Your task to perform on an android device: find snoozed emails in the gmail app Image 0: 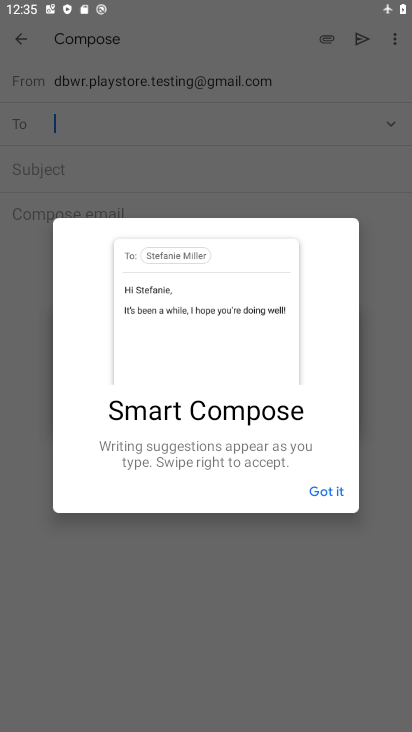
Step 0: drag from (204, 647) to (204, 10)
Your task to perform on an android device: find snoozed emails in the gmail app Image 1: 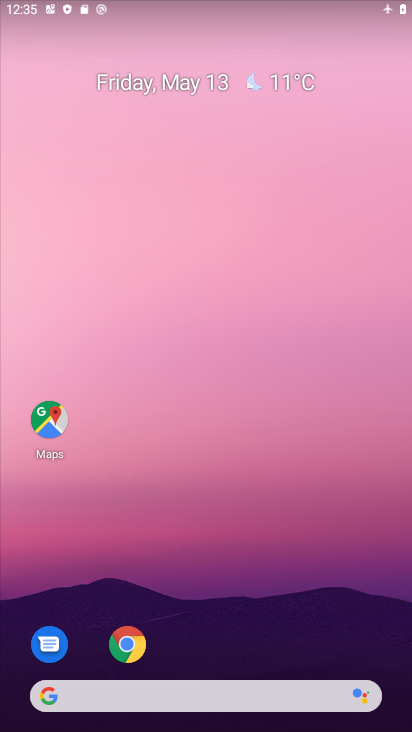
Step 1: click (132, 456)
Your task to perform on an android device: find snoozed emails in the gmail app Image 2: 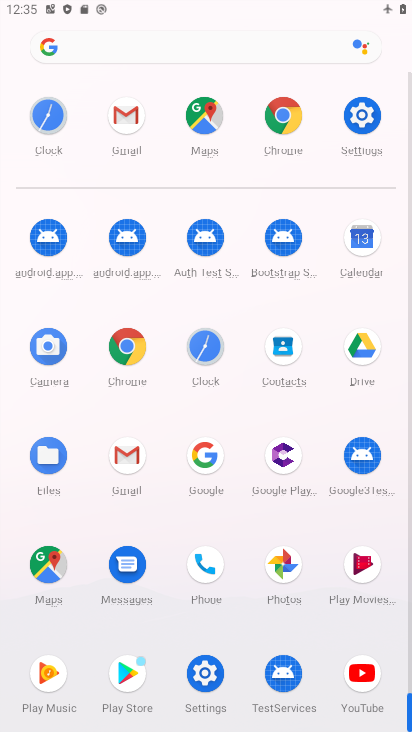
Step 2: click (34, 43)
Your task to perform on an android device: find snoozed emails in the gmail app Image 3: 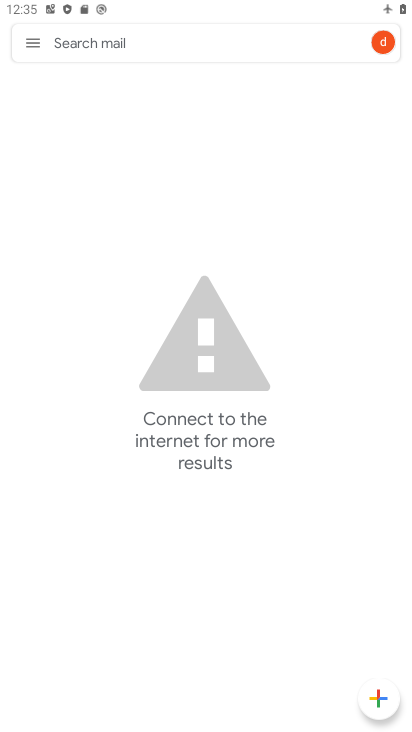
Step 3: click (99, 259)
Your task to perform on an android device: find snoozed emails in the gmail app Image 4: 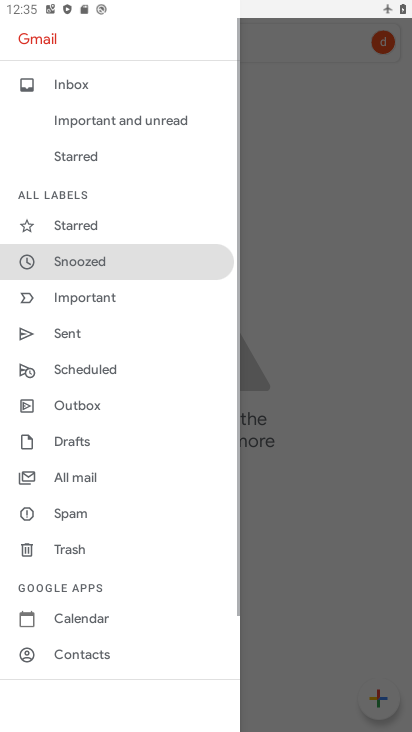
Step 4: task complete